Your task to perform on an android device: change keyboard looks Image 0: 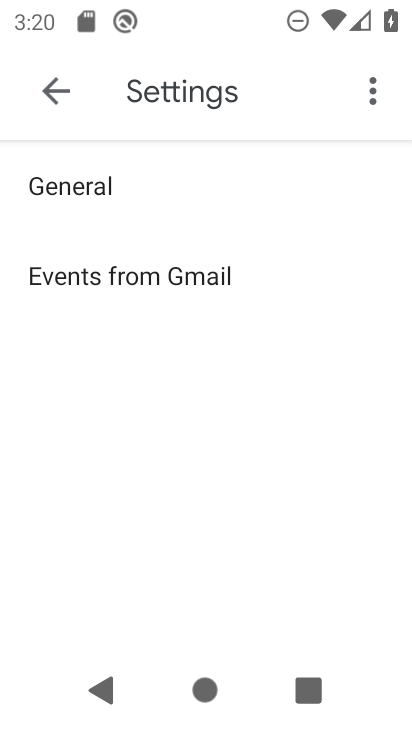
Step 0: press home button
Your task to perform on an android device: change keyboard looks Image 1: 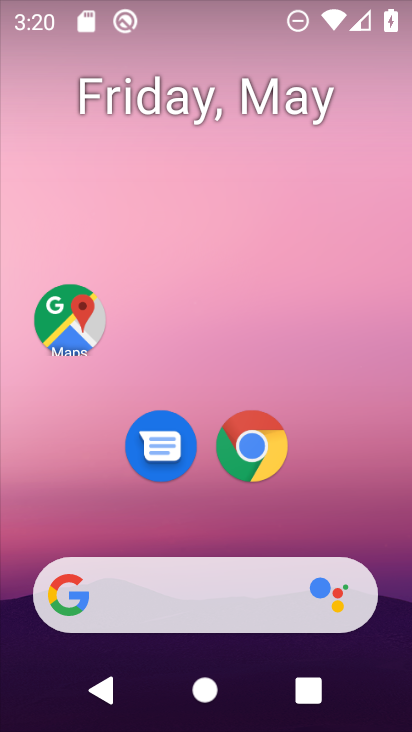
Step 1: drag from (308, 505) to (350, 120)
Your task to perform on an android device: change keyboard looks Image 2: 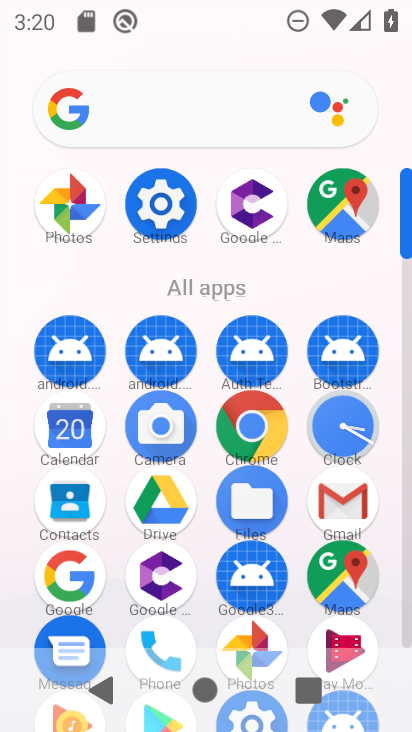
Step 2: click (162, 206)
Your task to perform on an android device: change keyboard looks Image 3: 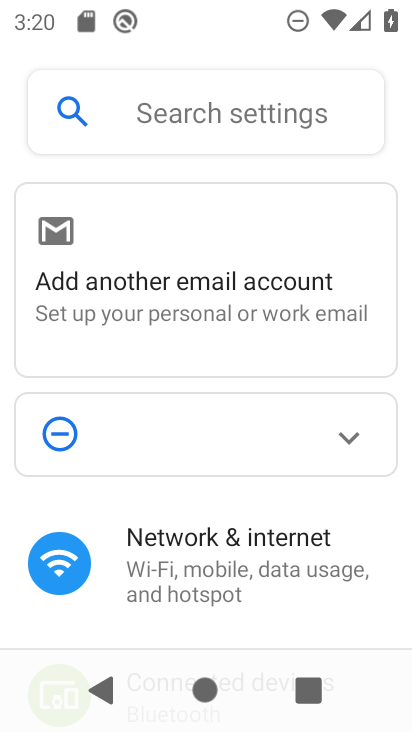
Step 3: drag from (356, 611) to (334, 82)
Your task to perform on an android device: change keyboard looks Image 4: 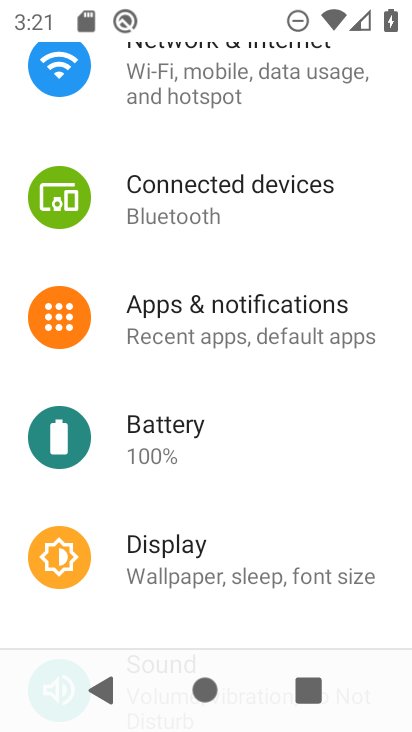
Step 4: drag from (331, 532) to (313, 119)
Your task to perform on an android device: change keyboard looks Image 5: 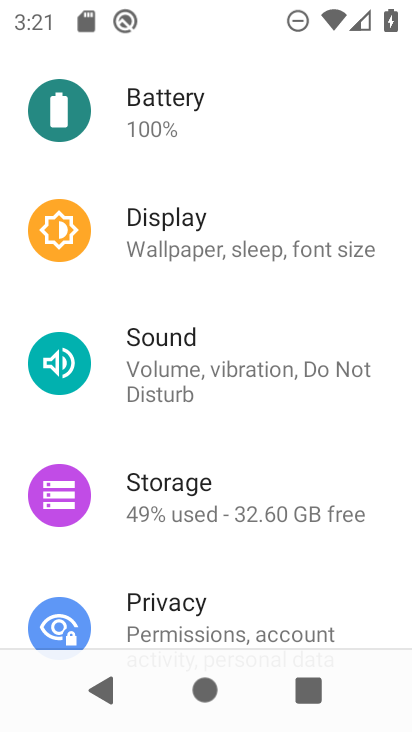
Step 5: drag from (298, 583) to (312, 120)
Your task to perform on an android device: change keyboard looks Image 6: 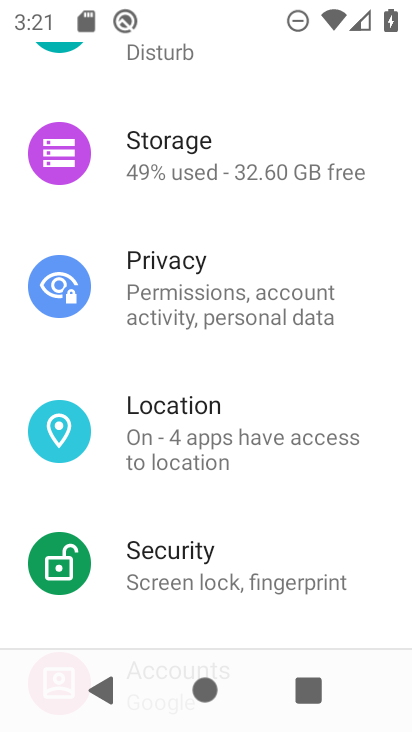
Step 6: drag from (350, 530) to (346, 66)
Your task to perform on an android device: change keyboard looks Image 7: 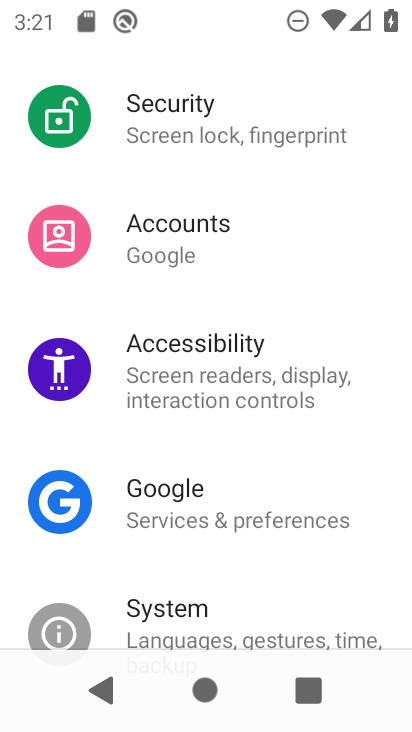
Step 7: click (187, 618)
Your task to perform on an android device: change keyboard looks Image 8: 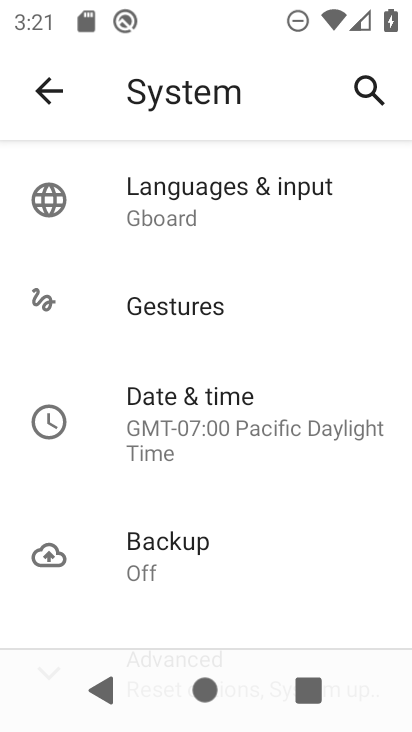
Step 8: click (191, 185)
Your task to perform on an android device: change keyboard looks Image 9: 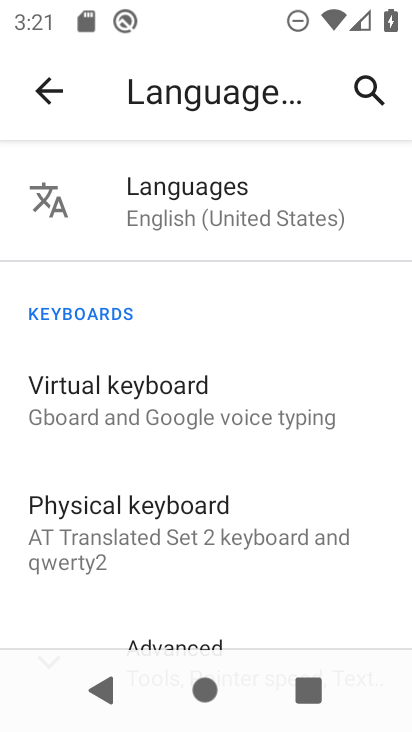
Step 9: click (181, 407)
Your task to perform on an android device: change keyboard looks Image 10: 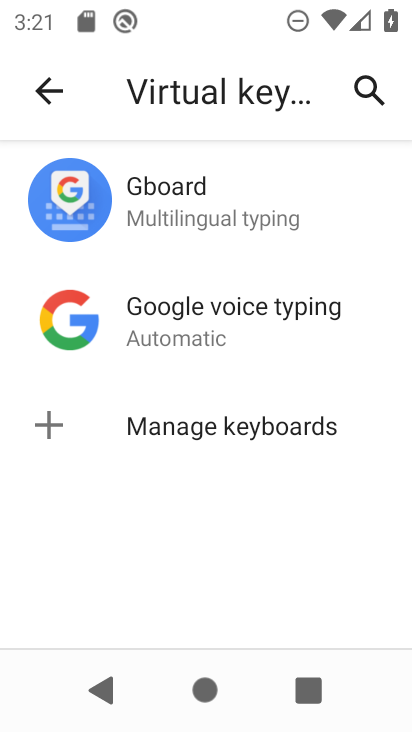
Step 10: click (188, 215)
Your task to perform on an android device: change keyboard looks Image 11: 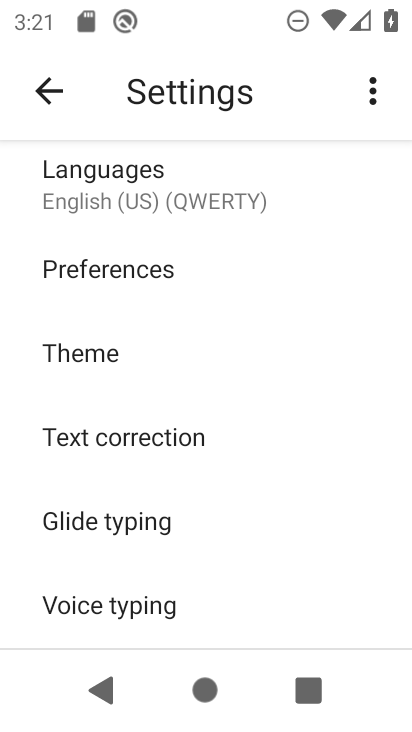
Step 11: click (99, 349)
Your task to perform on an android device: change keyboard looks Image 12: 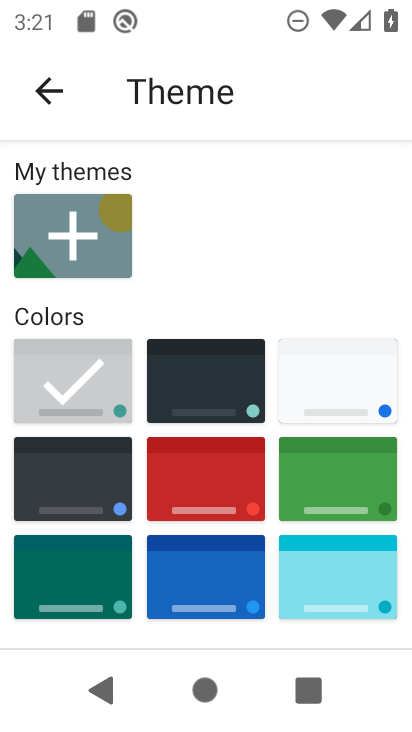
Step 12: click (251, 357)
Your task to perform on an android device: change keyboard looks Image 13: 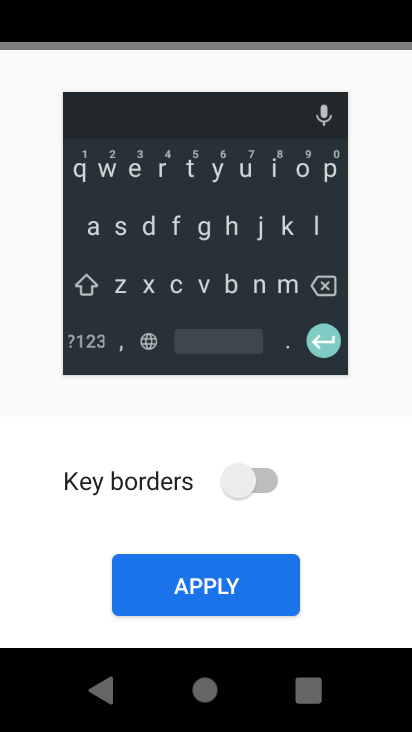
Step 13: click (266, 487)
Your task to perform on an android device: change keyboard looks Image 14: 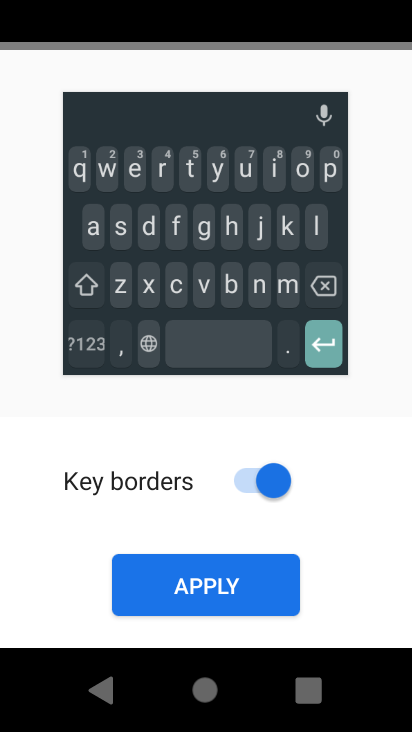
Step 14: click (274, 577)
Your task to perform on an android device: change keyboard looks Image 15: 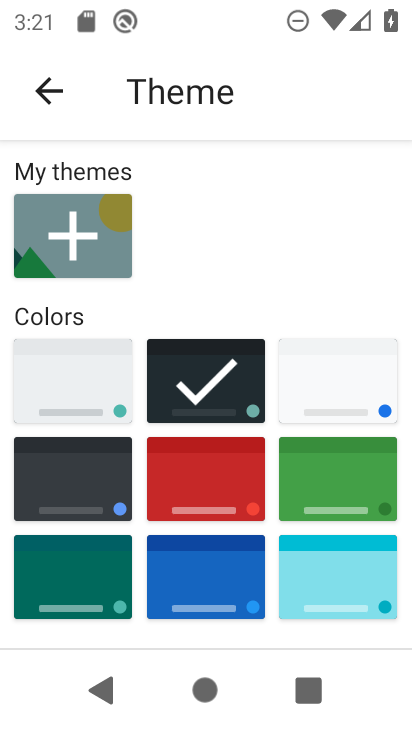
Step 15: task complete